Your task to perform on an android device: Open settings Image 0: 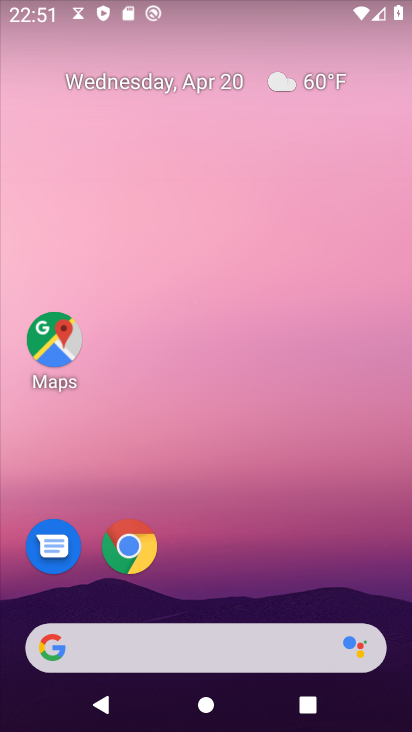
Step 0: drag from (215, 302) to (191, 45)
Your task to perform on an android device: Open settings Image 1: 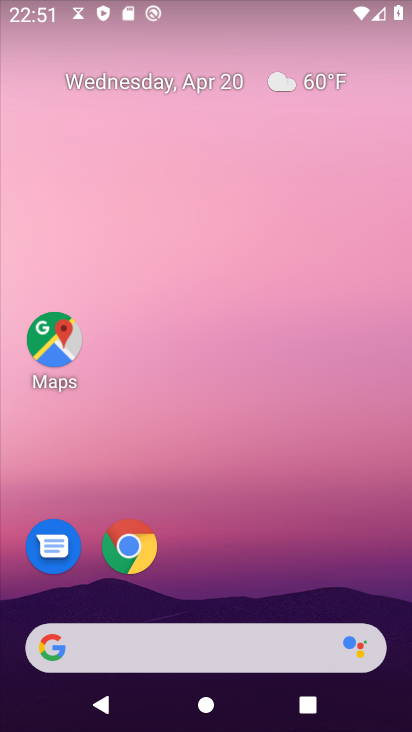
Step 1: drag from (229, 551) to (208, 45)
Your task to perform on an android device: Open settings Image 2: 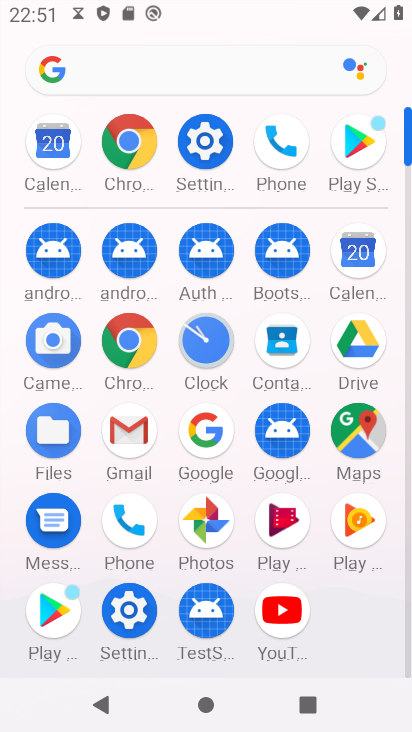
Step 2: click (203, 141)
Your task to perform on an android device: Open settings Image 3: 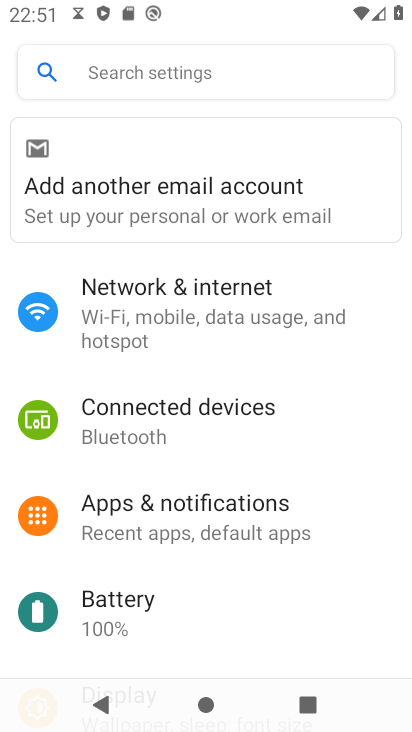
Step 3: task complete